Your task to perform on an android device: turn off data saver in the chrome app Image 0: 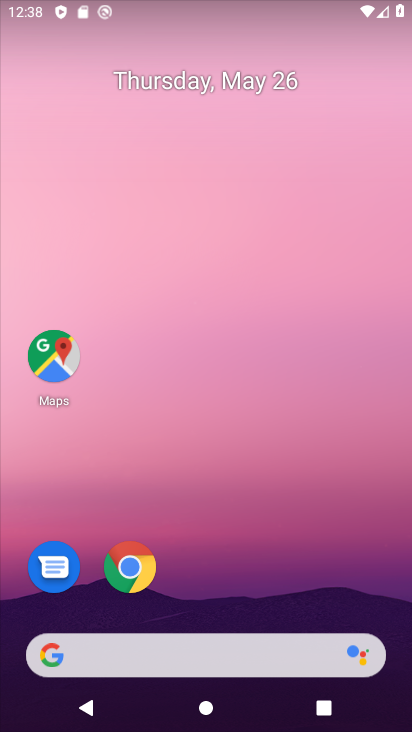
Step 0: click (132, 563)
Your task to perform on an android device: turn off data saver in the chrome app Image 1: 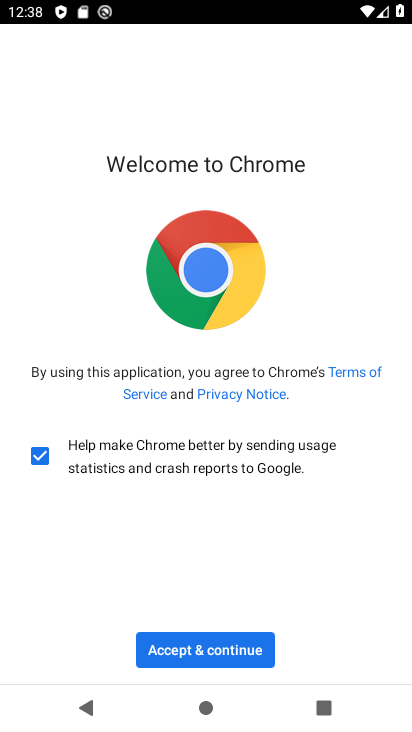
Step 1: click (237, 649)
Your task to perform on an android device: turn off data saver in the chrome app Image 2: 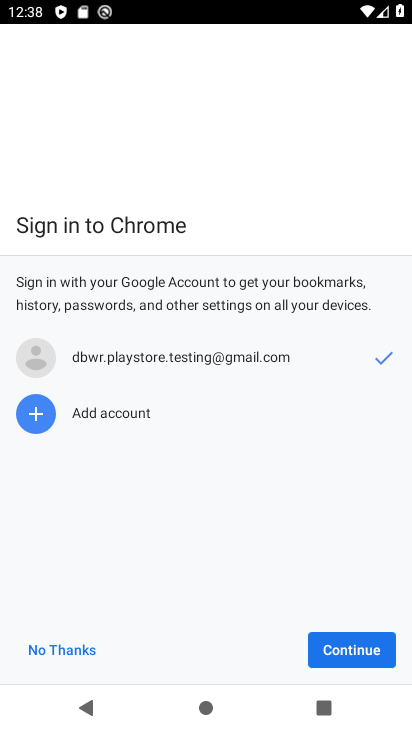
Step 2: click (329, 649)
Your task to perform on an android device: turn off data saver in the chrome app Image 3: 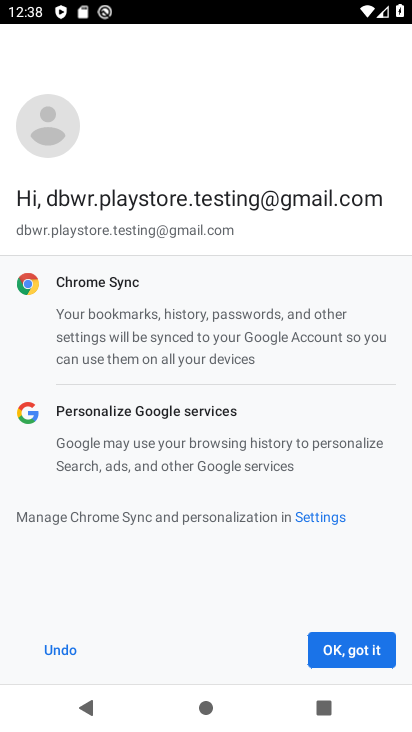
Step 3: click (329, 649)
Your task to perform on an android device: turn off data saver in the chrome app Image 4: 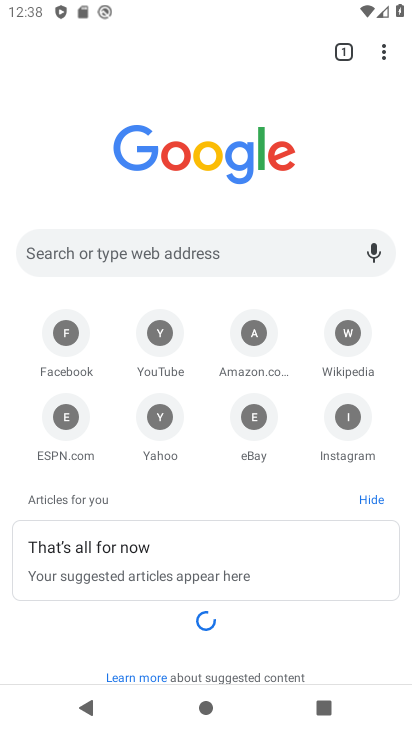
Step 4: click (381, 56)
Your task to perform on an android device: turn off data saver in the chrome app Image 5: 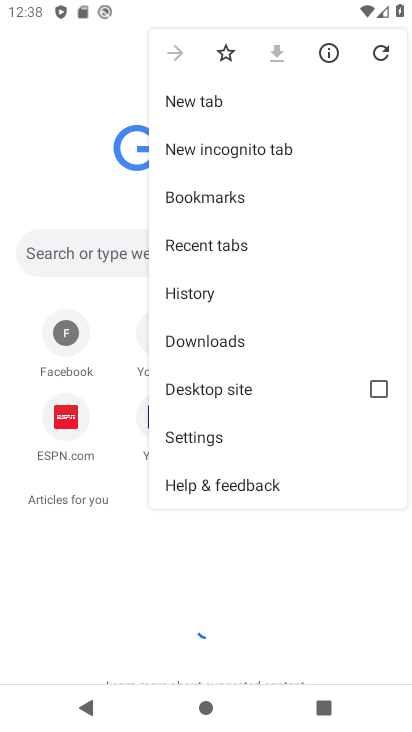
Step 5: click (201, 441)
Your task to perform on an android device: turn off data saver in the chrome app Image 6: 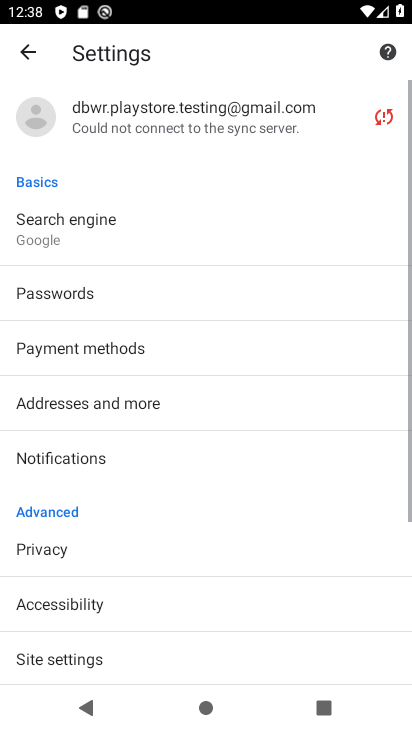
Step 6: drag from (154, 549) to (200, 328)
Your task to perform on an android device: turn off data saver in the chrome app Image 7: 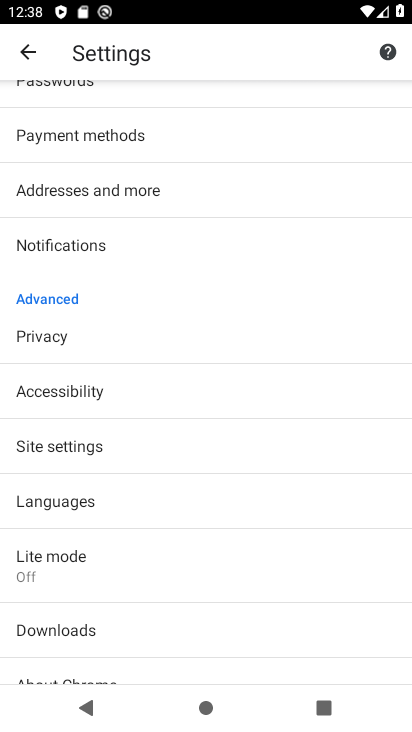
Step 7: click (92, 563)
Your task to perform on an android device: turn off data saver in the chrome app Image 8: 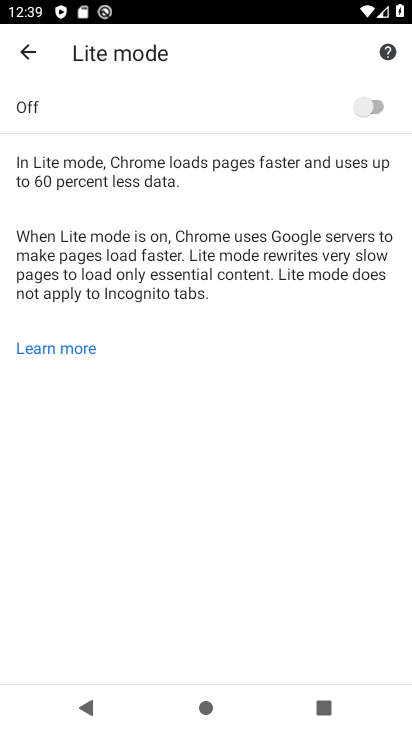
Step 8: task complete